Your task to perform on an android device: turn pop-ups off in chrome Image 0: 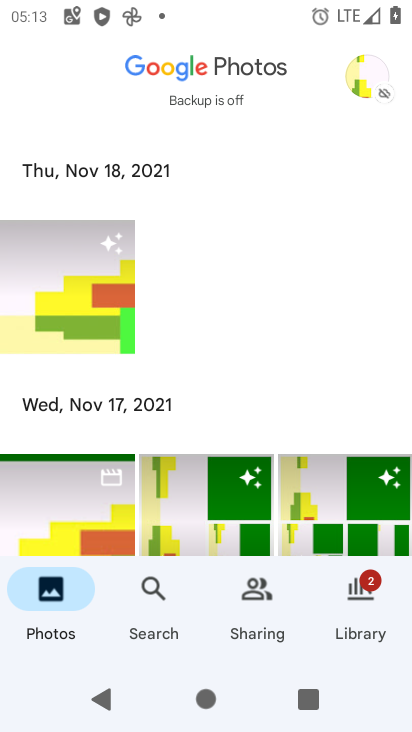
Step 0: press home button
Your task to perform on an android device: turn pop-ups off in chrome Image 1: 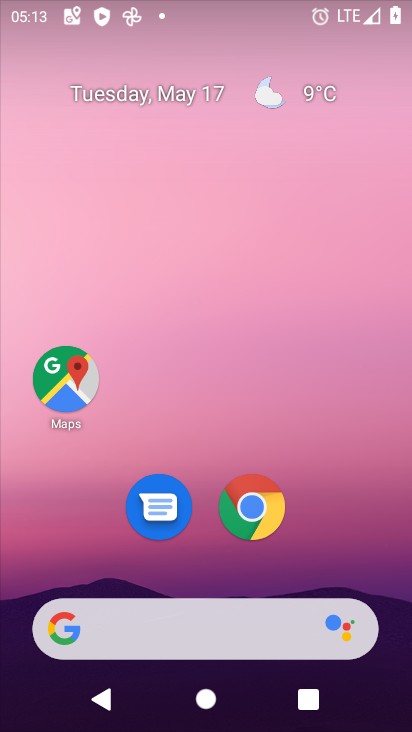
Step 1: click (263, 510)
Your task to perform on an android device: turn pop-ups off in chrome Image 2: 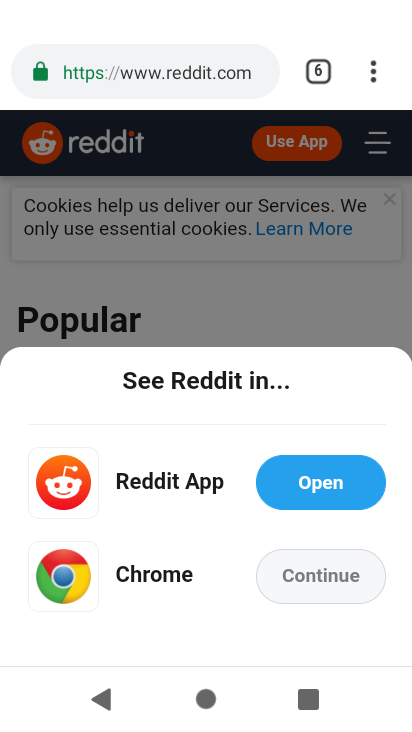
Step 2: click (384, 51)
Your task to perform on an android device: turn pop-ups off in chrome Image 3: 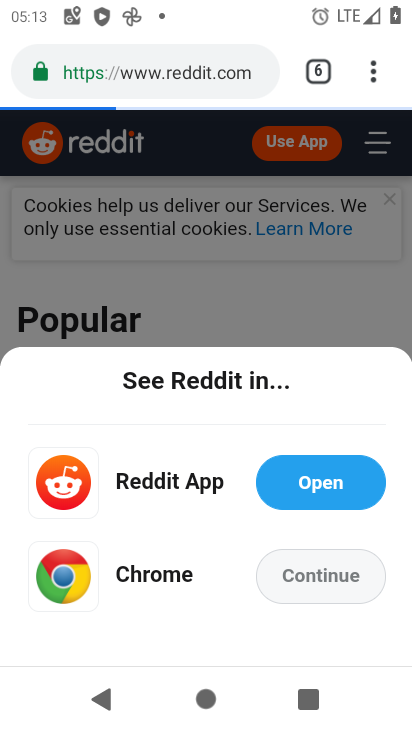
Step 3: click (371, 67)
Your task to perform on an android device: turn pop-ups off in chrome Image 4: 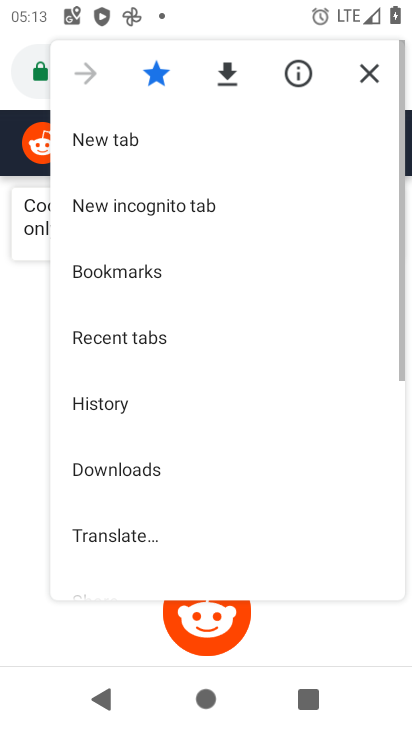
Step 4: drag from (278, 450) to (269, 99)
Your task to perform on an android device: turn pop-ups off in chrome Image 5: 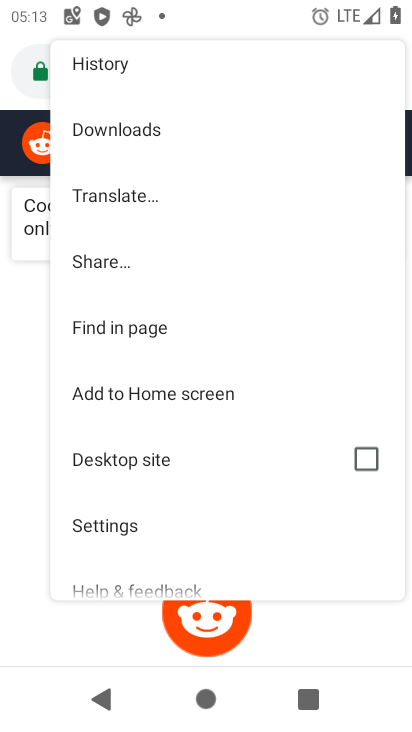
Step 5: click (207, 517)
Your task to perform on an android device: turn pop-ups off in chrome Image 6: 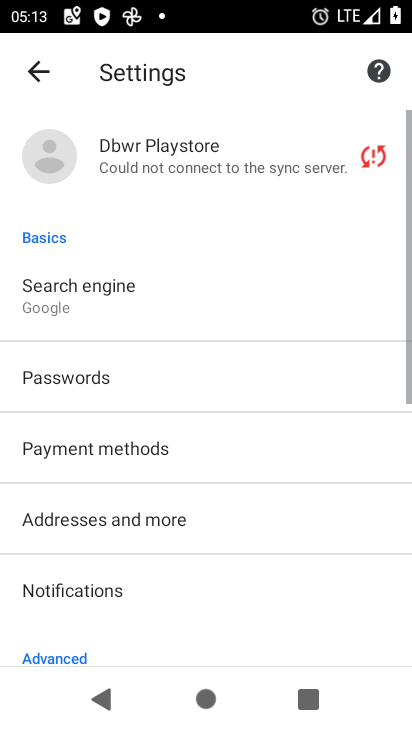
Step 6: drag from (207, 605) to (213, 161)
Your task to perform on an android device: turn pop-ups off in chrome Image 7: 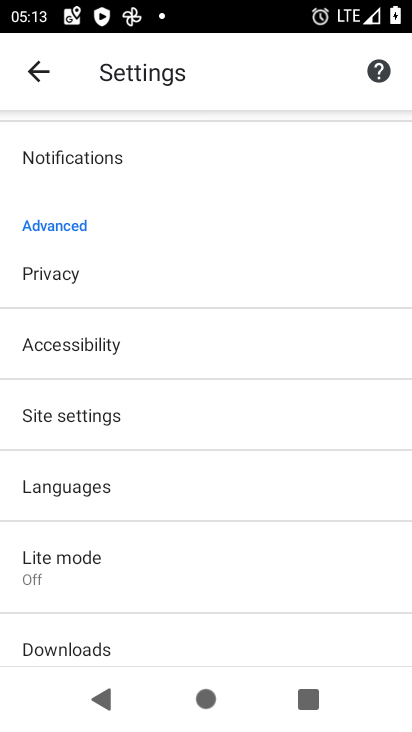
Step 7: click (141, 415)
Your task to perform on an android device: turn pop-ups off in chrome Image 8: 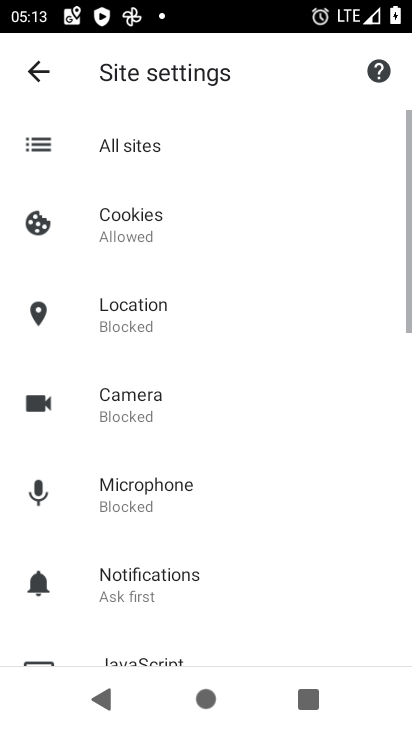
Step 8: drag from (258, 586) to (247, 150)
Your task to perform on an android device: turn pop-ups off in chrome Image 9: 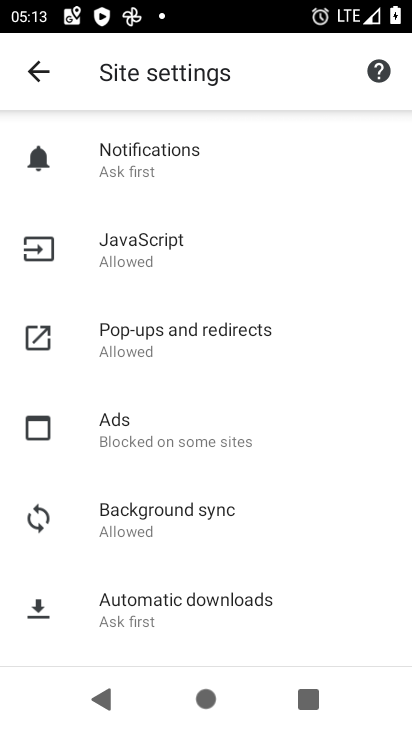
Step 9: drag from (236, 574) to (266, 222)
Your task to perform on an android device: turn pop-ups off in chrome Image 10: 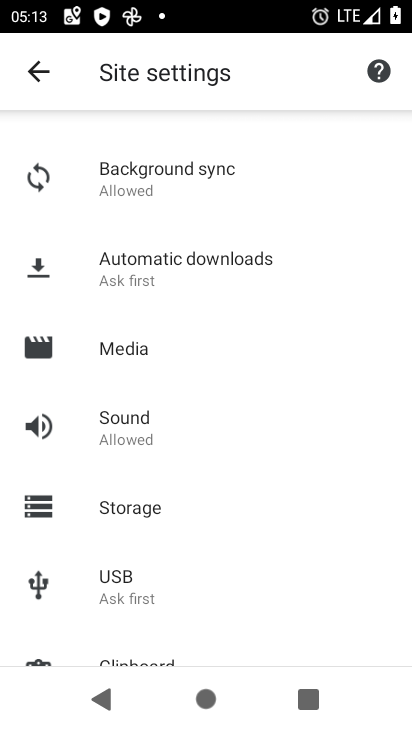
Step 10: drag from (275, 208) to (233, 514)
Your task to perform on an android device: turn pop-ups off in chrome Image 11: 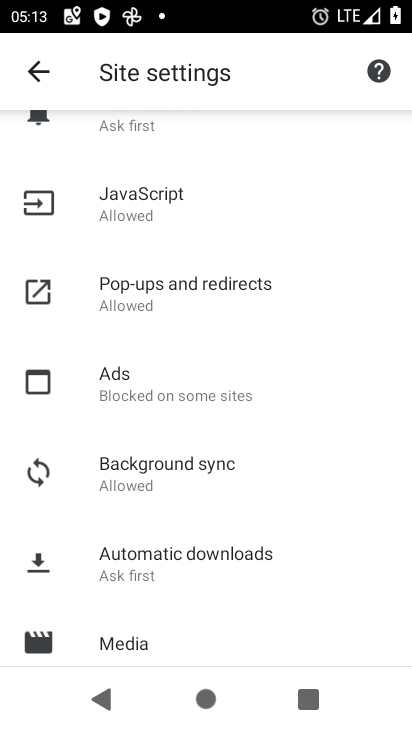
Step 11: click (198, 296)
Your task to perform on an android device: turn pop-ups off in chrome Image 12: 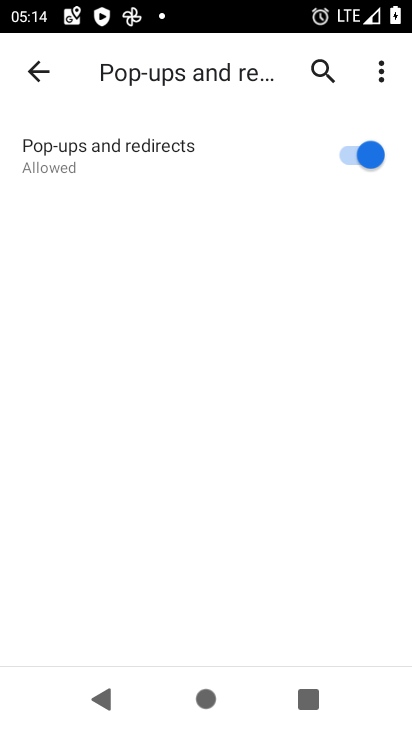
Step 12: click (364, 146)
Your task to perform on an android device: turn pop-ups off in chrome Image 13: 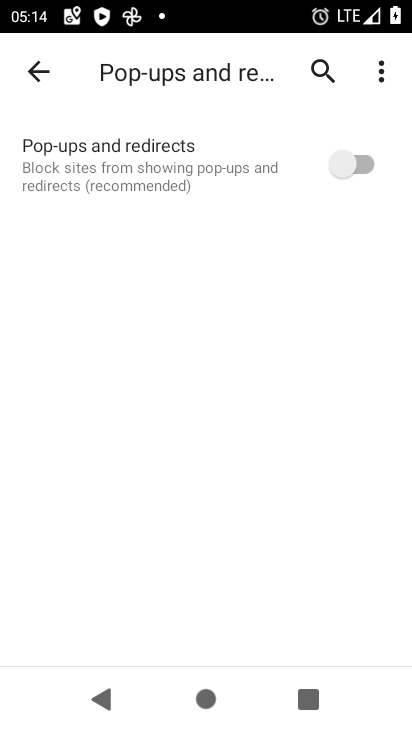
Step 13: task complete